Your task to perform on an android device: Toggle the flashlight Image 0: 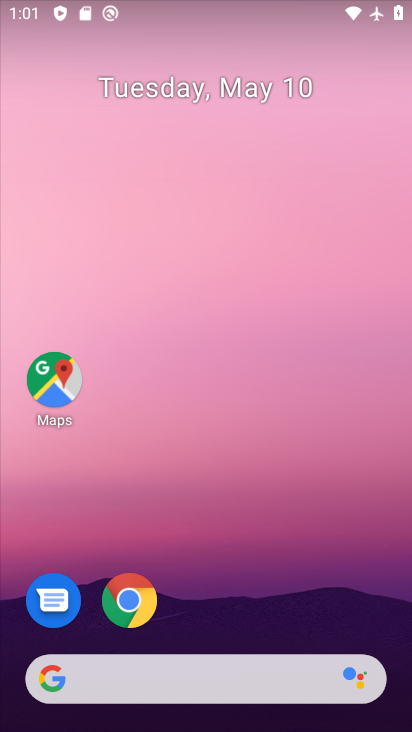
Step 0: drag from (246, 58) to (67, 683)
Your task to perform on an android device: Toggle the flashlight Image 1: 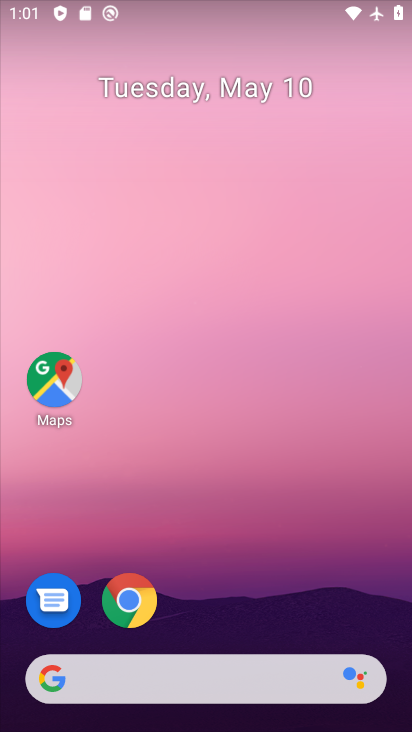
Step 1: task complete